Your task to perform on an android device: Go to Reddit.com Image 0: 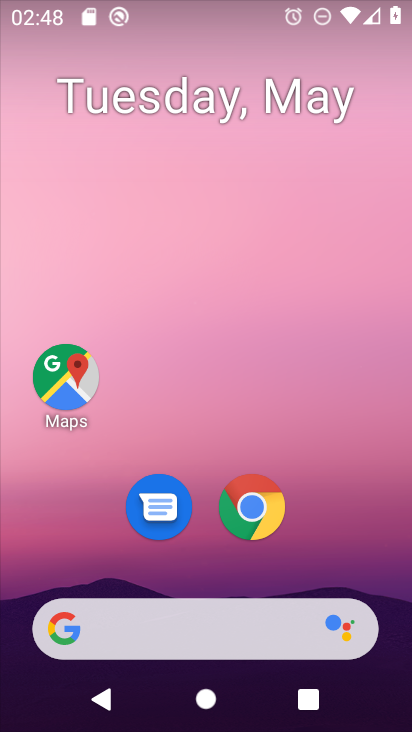
Step 0: click (204, 193)
Your task to perform on an android device: Go to Reddit.com Image 1: 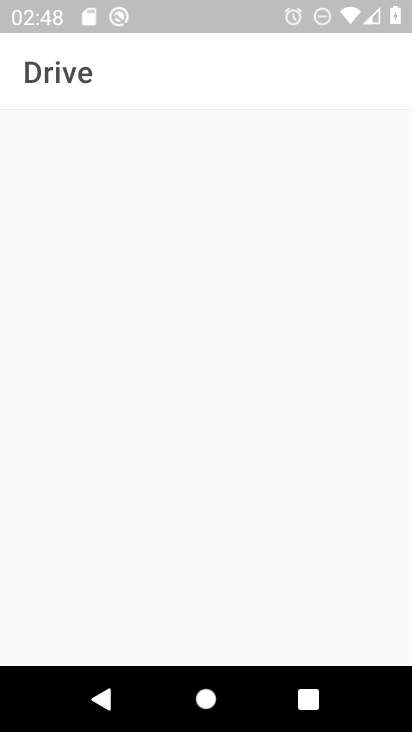
Step 1: drag from (215, 587) to (226, 166)
Your task to perform on an android device: Go to Reddit.com Image 2: 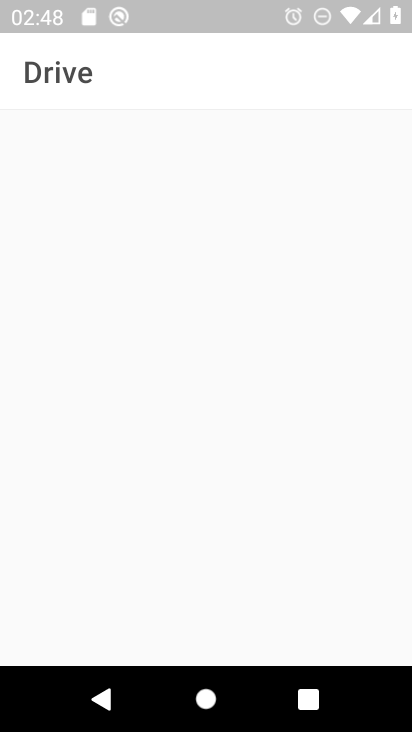
Step 2: press home button
Your task to perform on an android device: Go to Reddit.com Image 3: 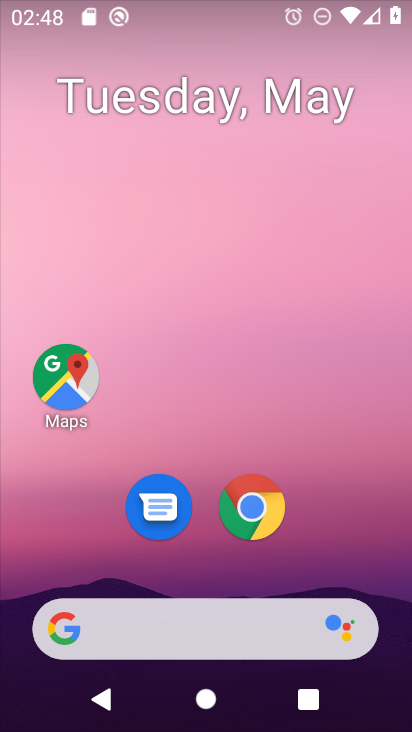
Step 3: click (231, 521)
Your task to perform on an android device: Go to Reddit.com Image 4: 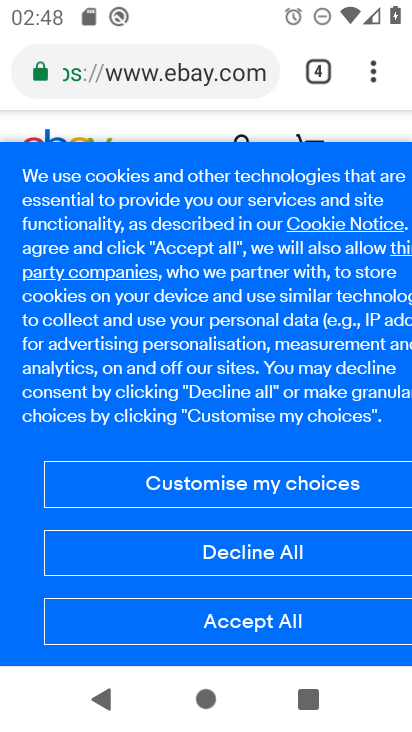
Step 4: click (316, 59)
Your task to perform on an android device: Go to Reddit.com Image 5: 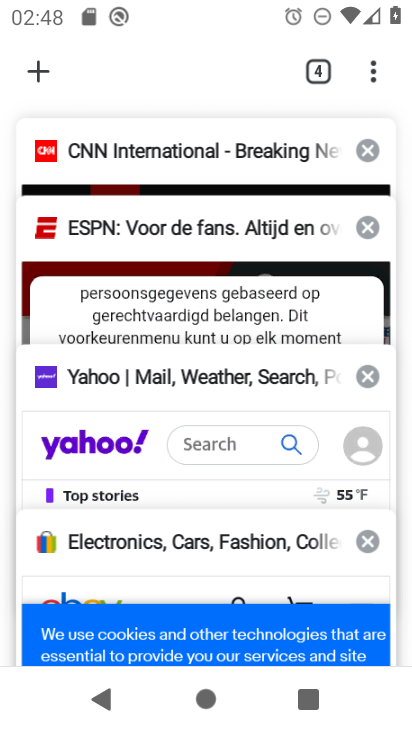
Step 5: click (39, 64)
Your task to perform on an android device: Go to Reddit.com Image 6: 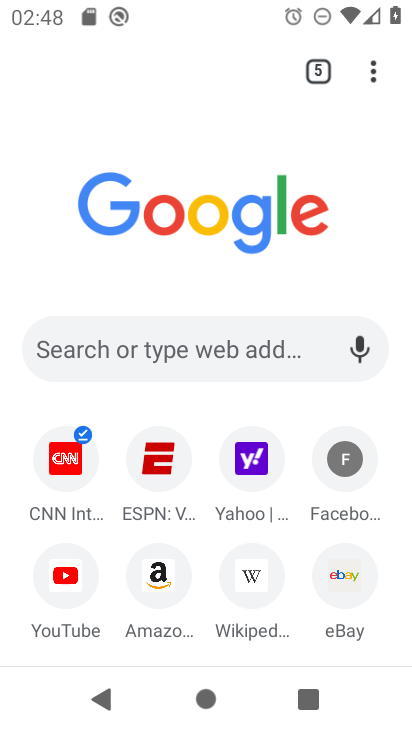
Step 6: click (146, 334)
Your task to perform on an android device: Go to Reddit.com Image 7: 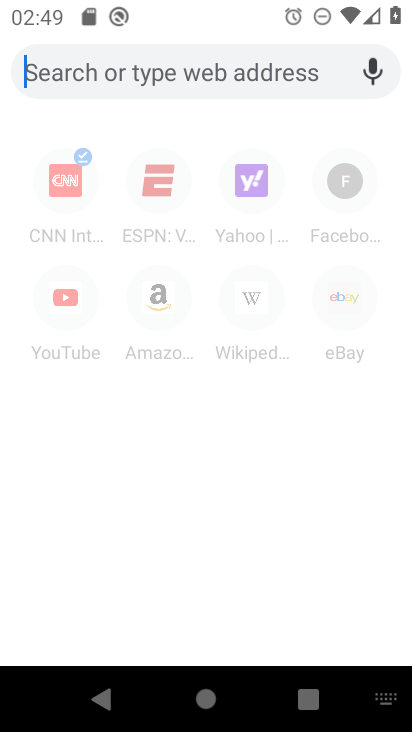
Step 7: type "Reddit.com"
Your task to perform on an android device: Go to Reddit.com Image 8: 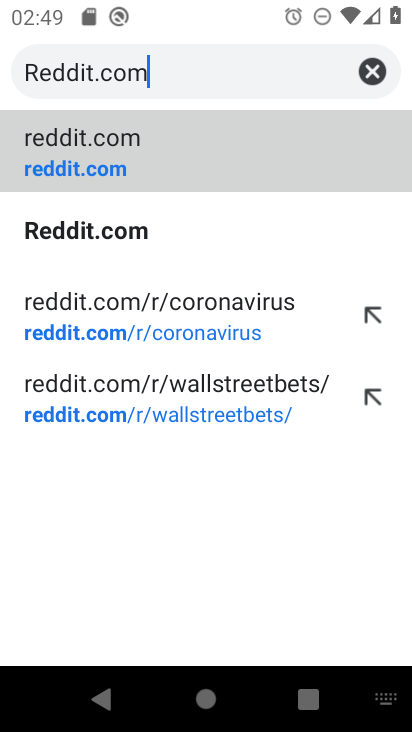
Step 8: click (102, 159)
Your task to perform on an android device: Go to Reddit.com Image 9: 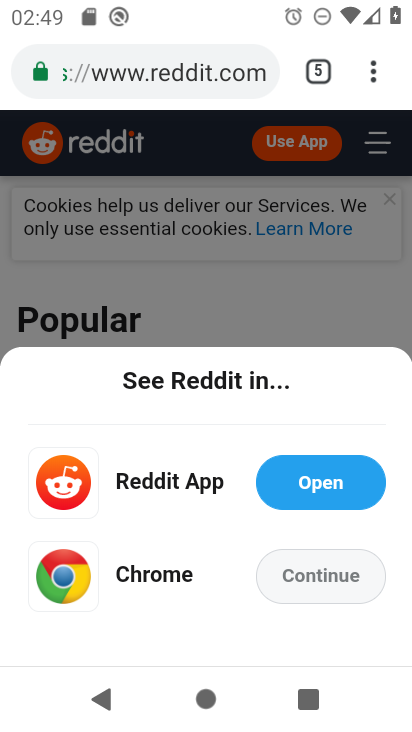
Step 9: task complete